Your task to perform on an android device: Search for a new lipstick on Sephora Image 0: 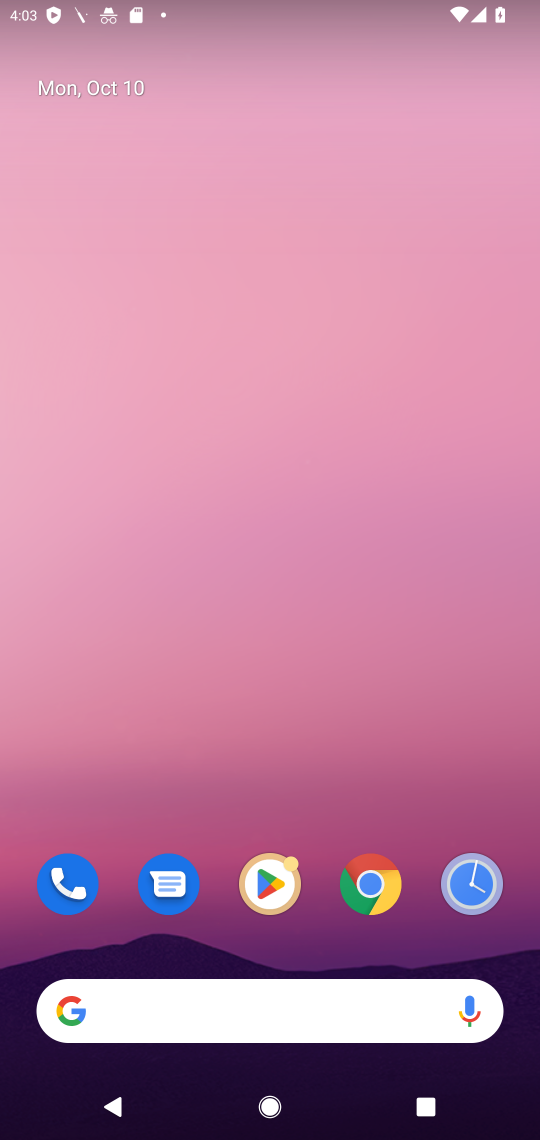
Step 0: click (347, 1010)
Your task to perform on an android device: Search for a new lipstick on Sephora Image 1: 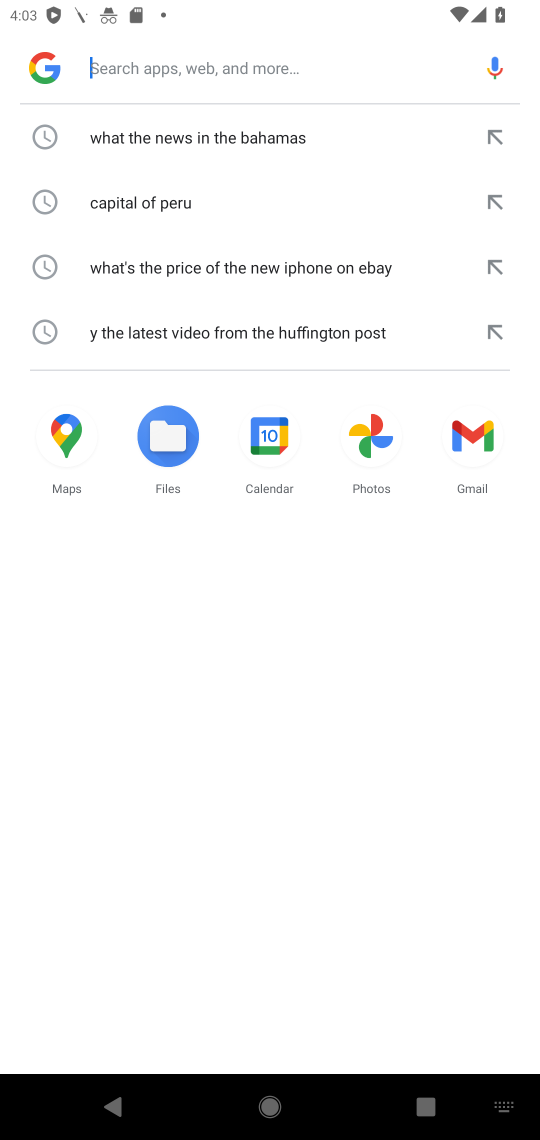
Step 1: type " new lipstick on Sephora"
Your task to perform on an android device: Search for a new lipstick on Sephora Image 2: 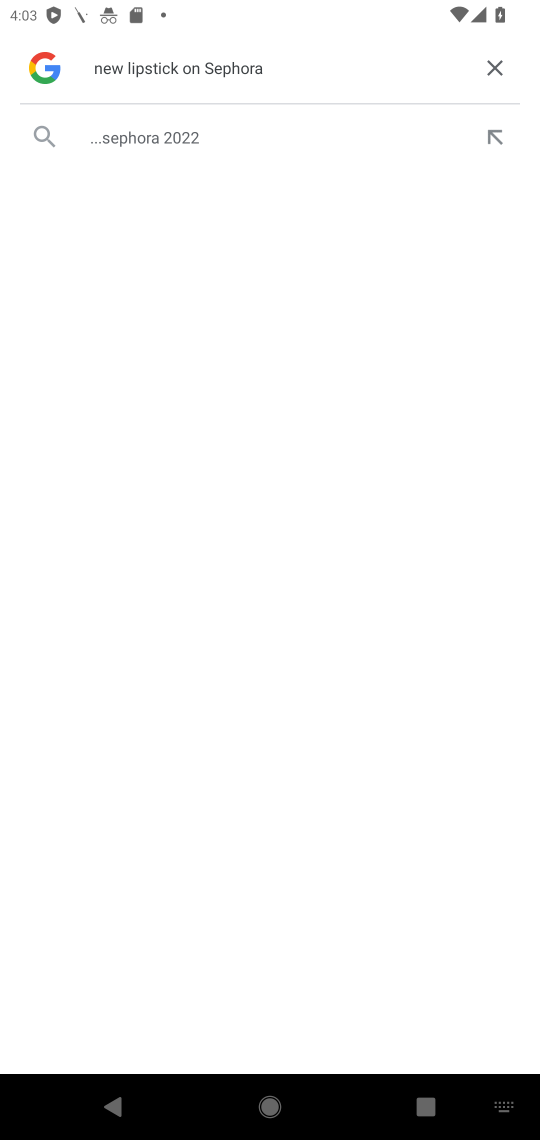
Step 2: click (252, 136)
Your task to perform on an android device: Search for a new lipstick on Sephora Image 3: 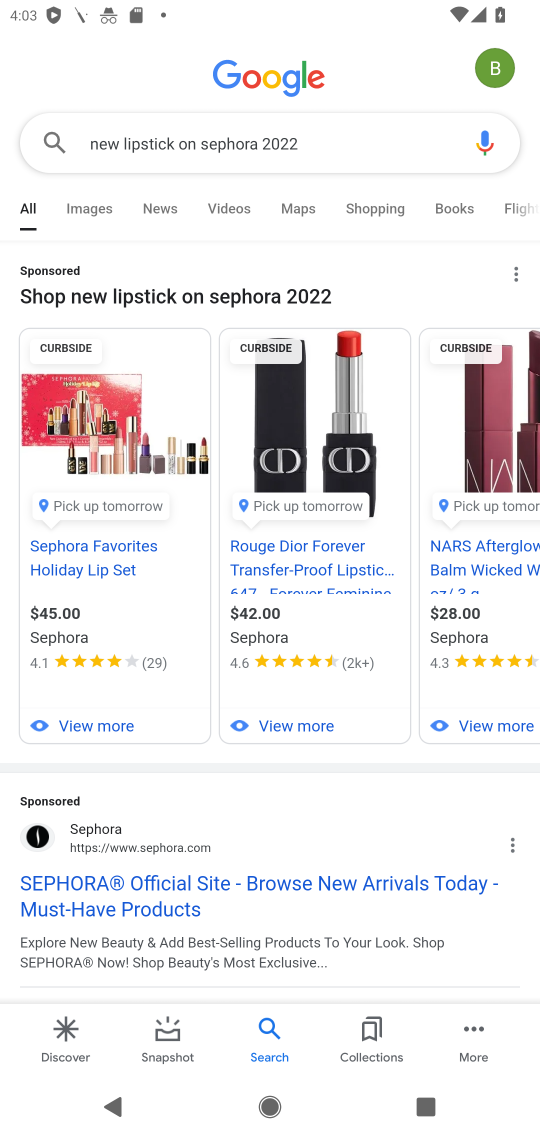
Step 3: task complete